Your task to perform on an android device: open a bookmark in the chrome app Image 0: 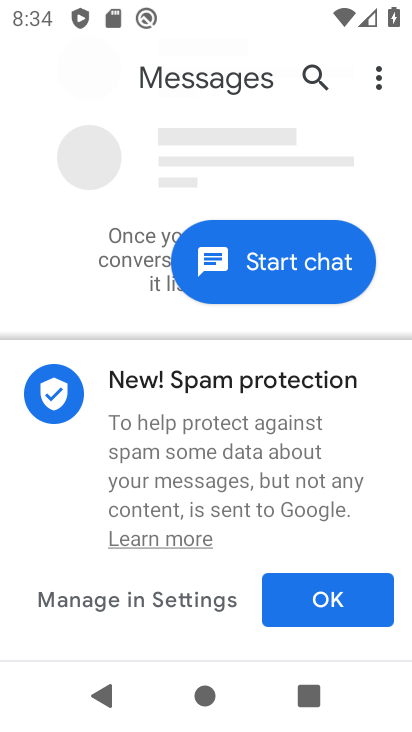
Step 0: press home button
Your task to perform on an android device: open a bookmark in the chrome app Image 1: 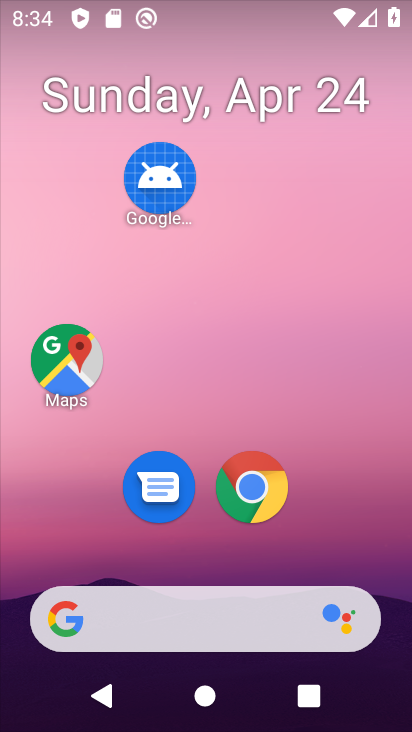
Step 1: click (271, 483)
Your task to perform on an android device: open a bookmark in the chrome app Image 2: 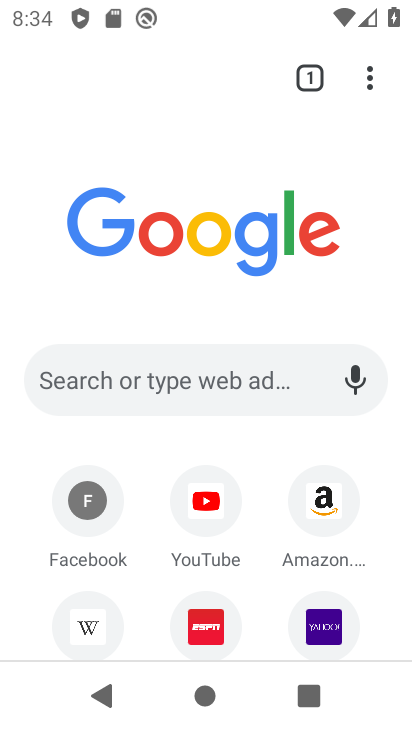
Step 2: task complete